Your task to perform on an android device: open sync settings in chrome Image 0: 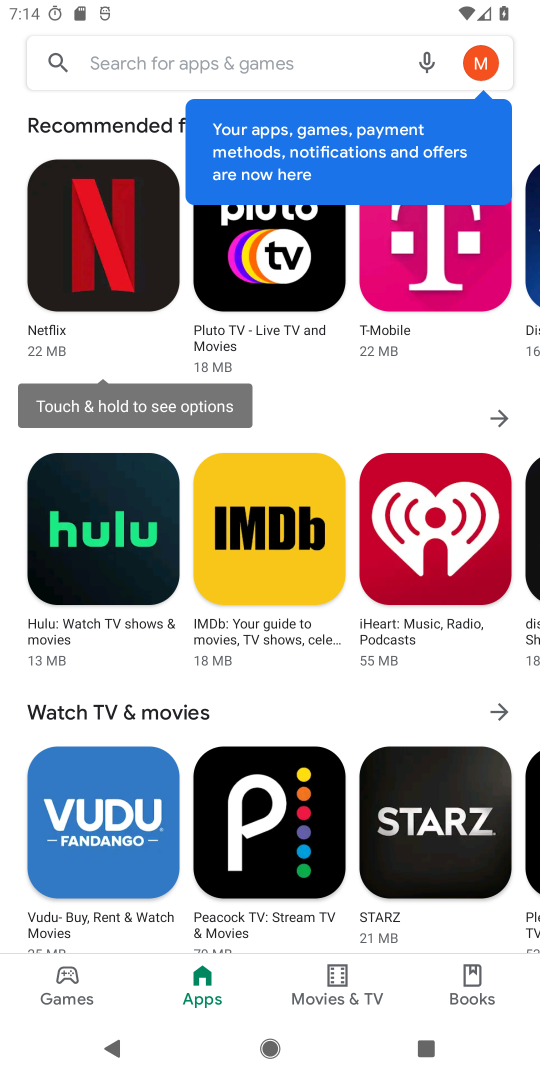
Step 0: click (245, 57)
Your task to perform on an android device: open sync settings in chrome Image 1: 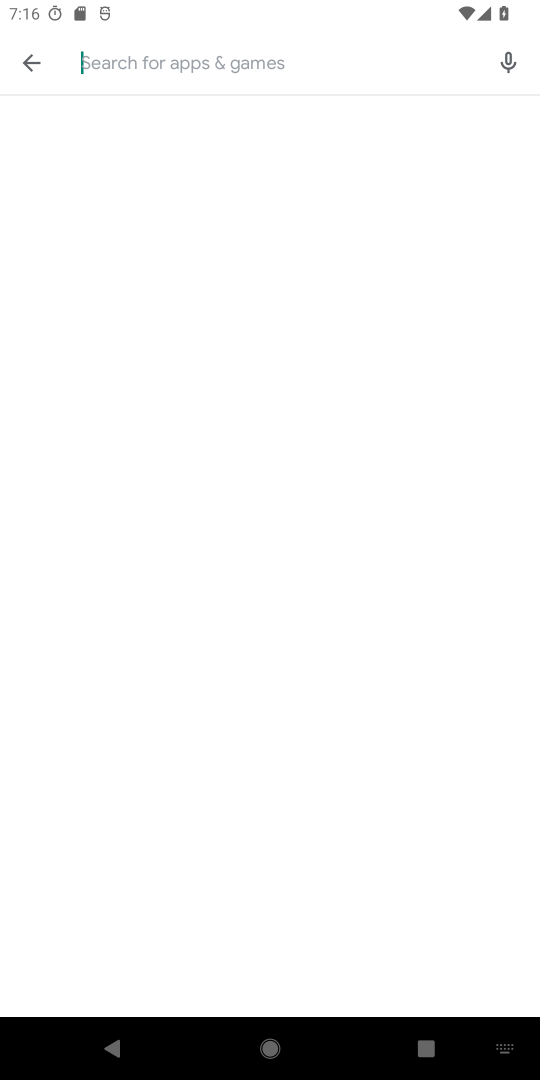
Step 1: click (40, 55)
Your task to perform on an android device: open sync settings in chrome Image 2: 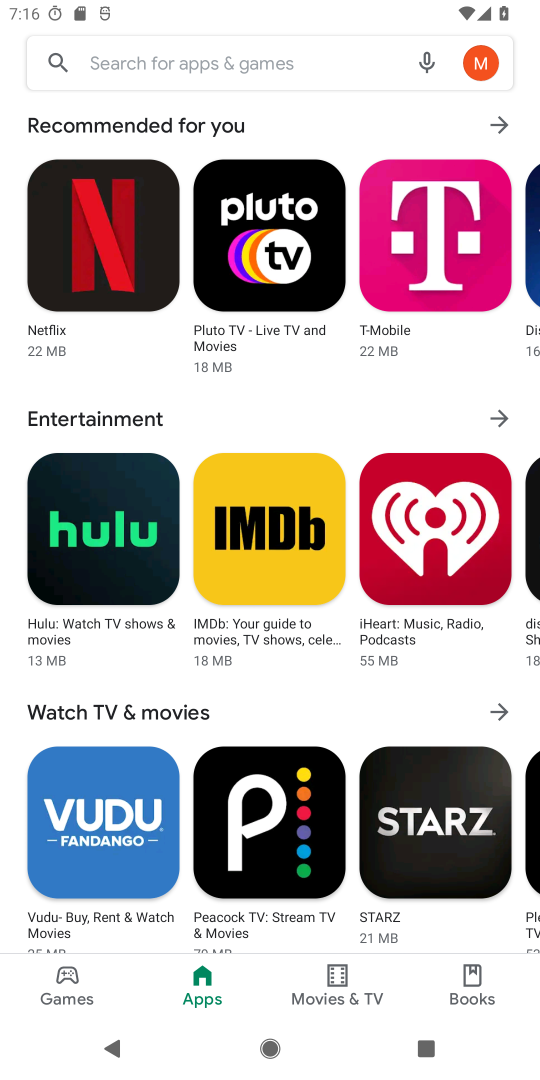
Step 2: press back button
Your task to perform on an android device: open sync settings in chrome Image 3: 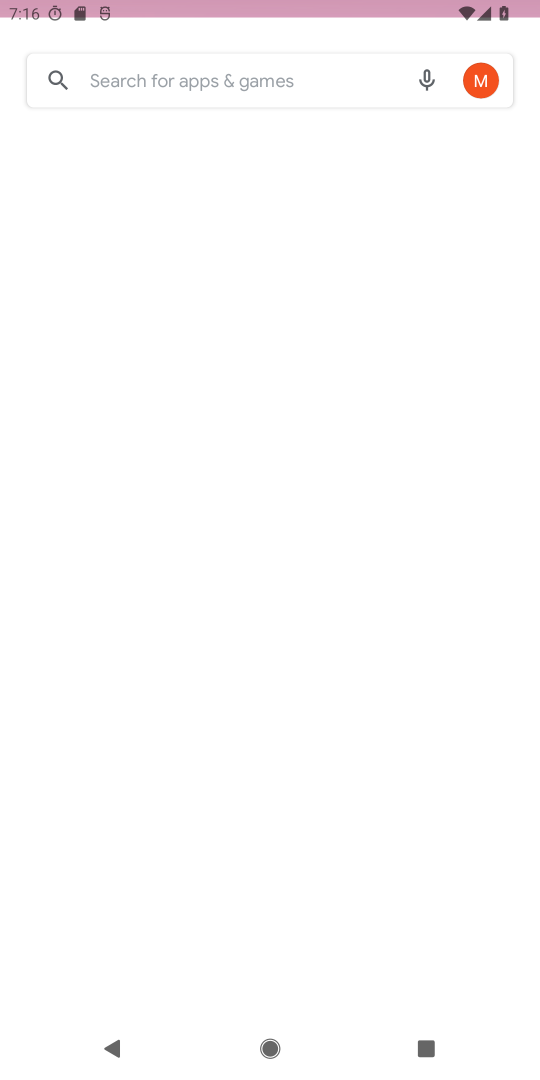
Step 3: press back button
Your task to perform on an android device: open sync settings in chrome Image 4: 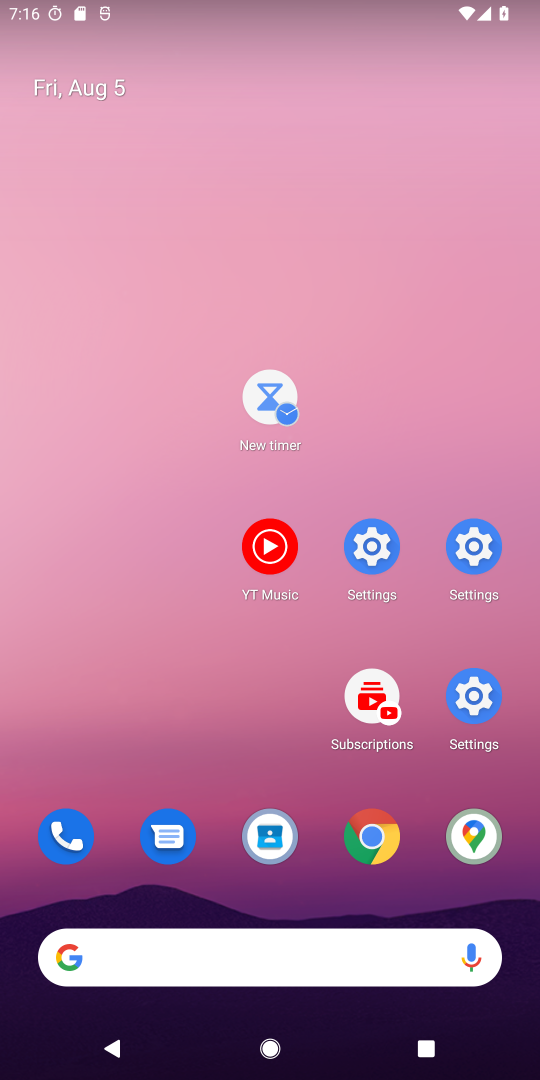
Step 4: drag from (200, 229) to (301, 278)
Your task to perform on an android device: open sync settings in chrome Image 5: 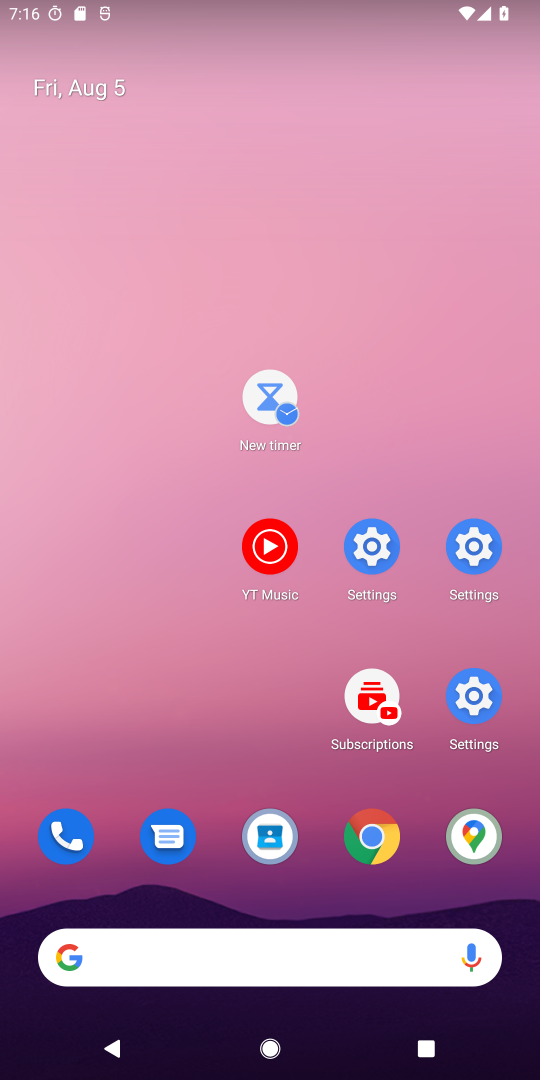
Step 5: drag from (260, 374) to (237, 195)
Your task to perform on an android device: open sync settings in chrome Image 6: 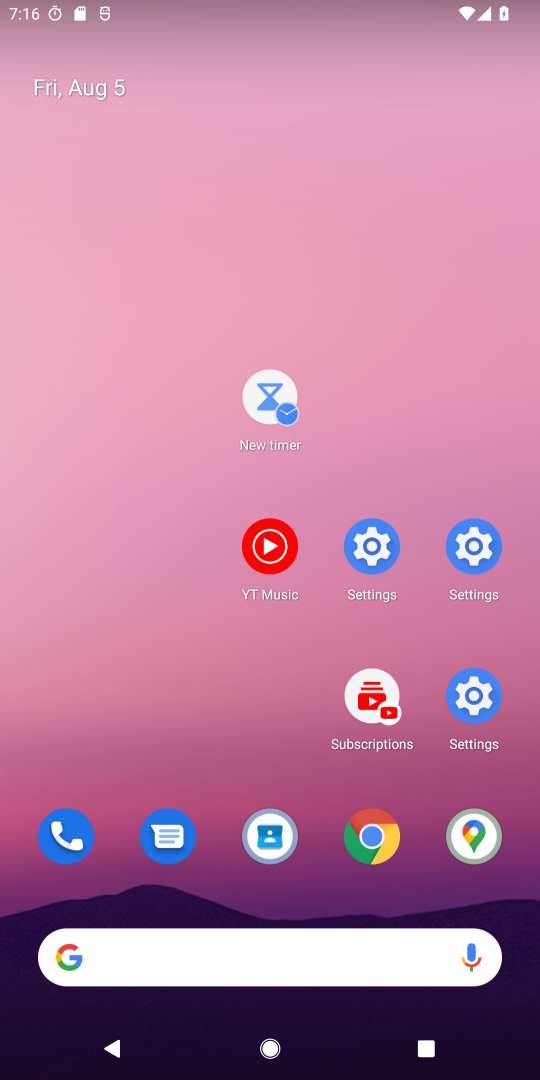
Step 6: drag from (240, 371) to (239, 478)
Your task to perform on an android device: open sync settings in chrome Image 7: 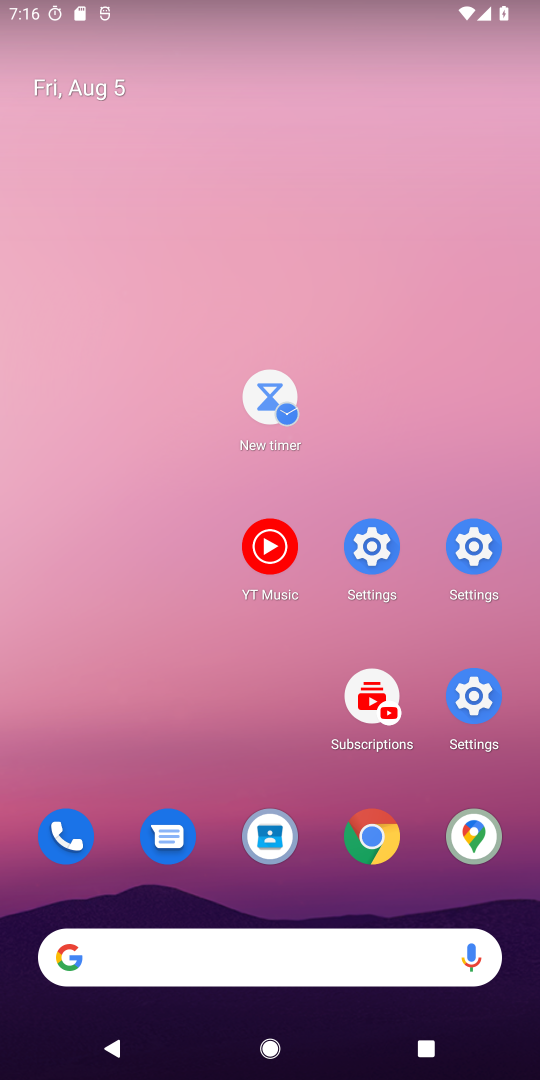
Step 7: drag from (248, 379) to (244, 241)
Your task to perform on an android device: open sync settings in chrome Image 8: 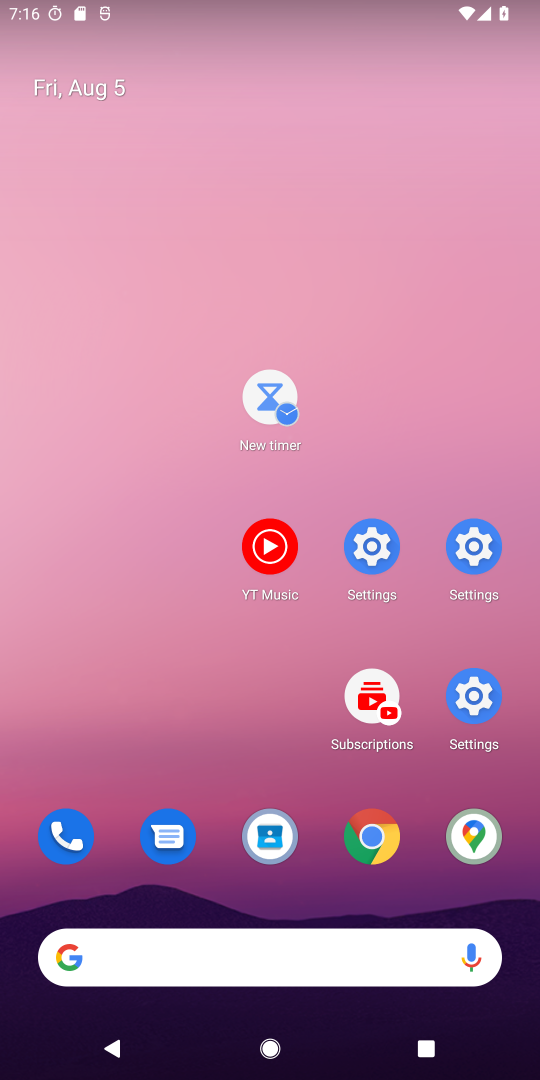
Step 8: drag from (219, 637) to (179, 287)
Your task to perform on an android device: open sync settings in chrome Image 9: 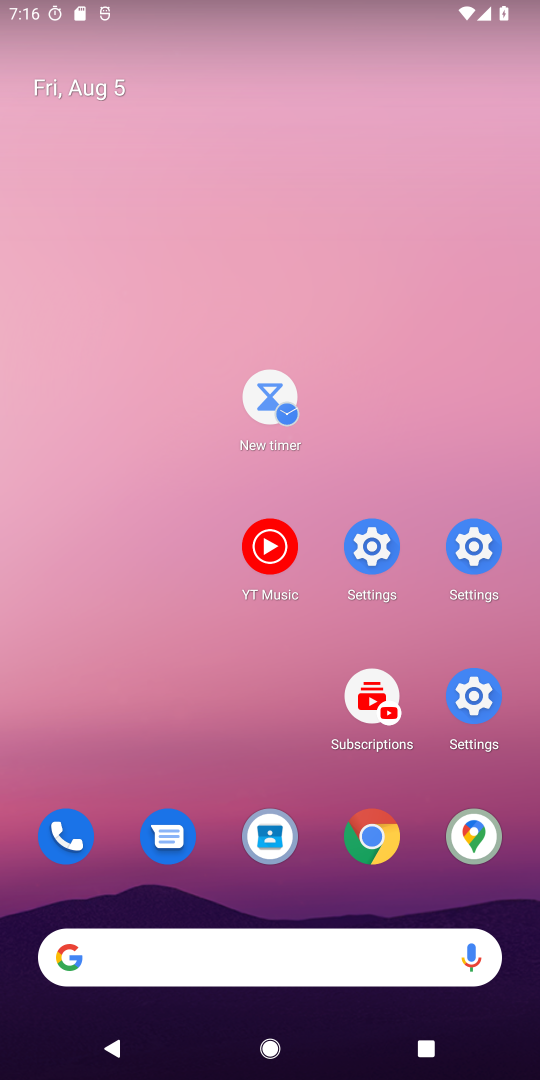
Step 9: drag from (248, 912) to (170, 230)
Your task to perform on an android device: open sync settings in chrome Image 10: 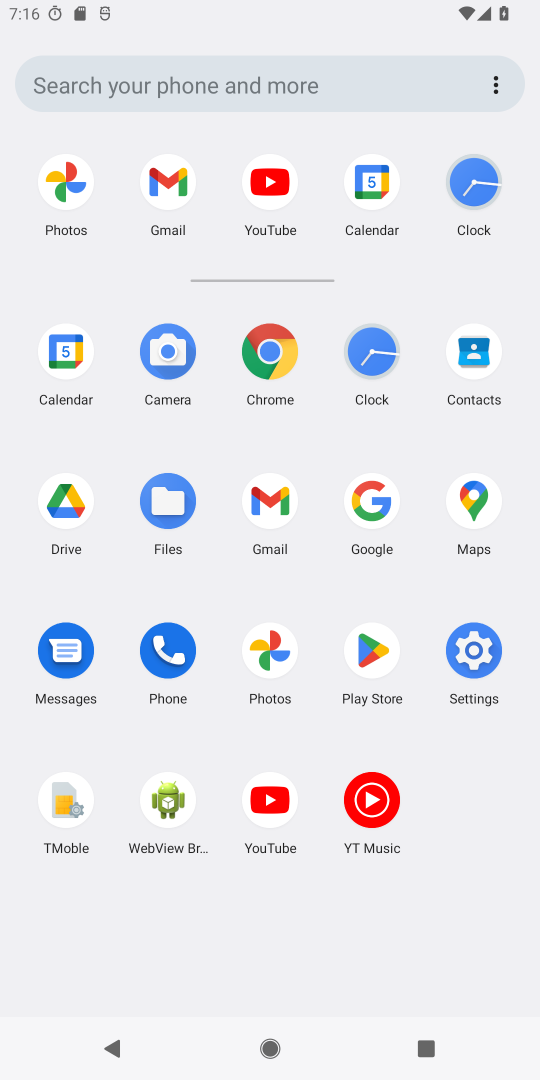
Step 10: click (277, 346)
Your task to perform on an android device: open sync settings in chrome Image 11: 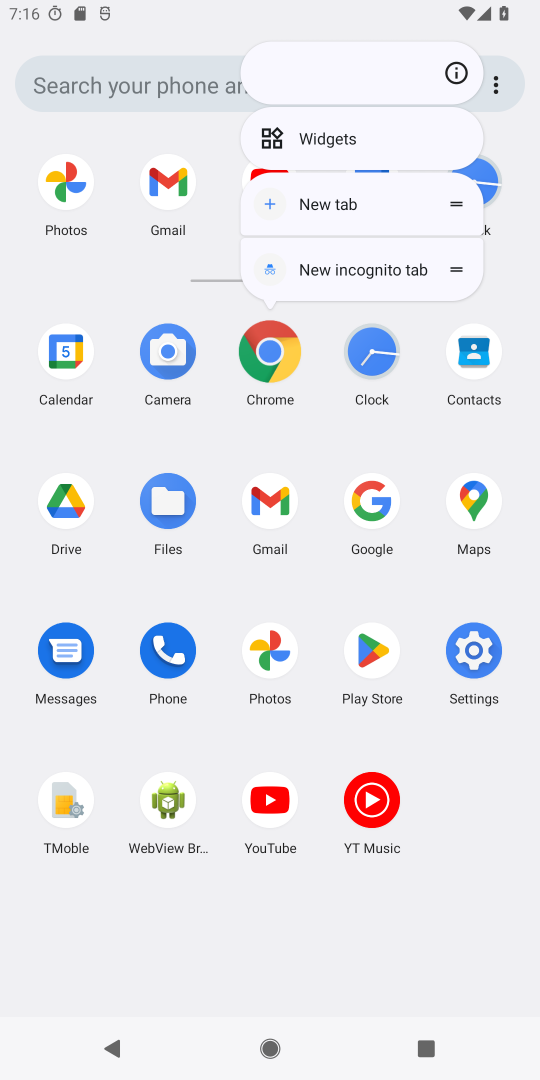
Step 11: click (277, 346)
Your task to perform on an android device: open sync settings in chrome Image 12: 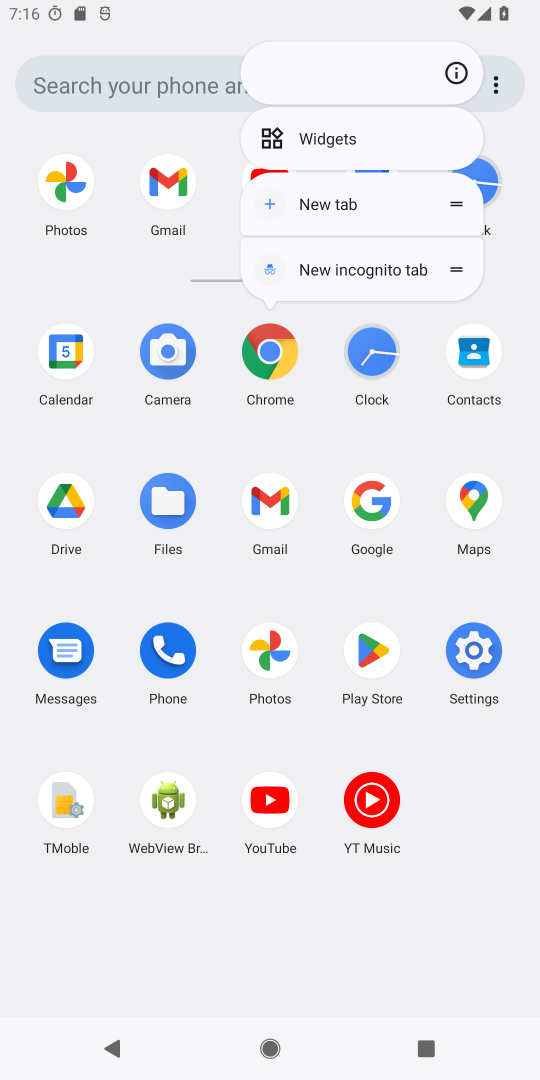
Step 12: click (254, 339)
Your task to perform on an android device: open sync settings in chrome Image 13: 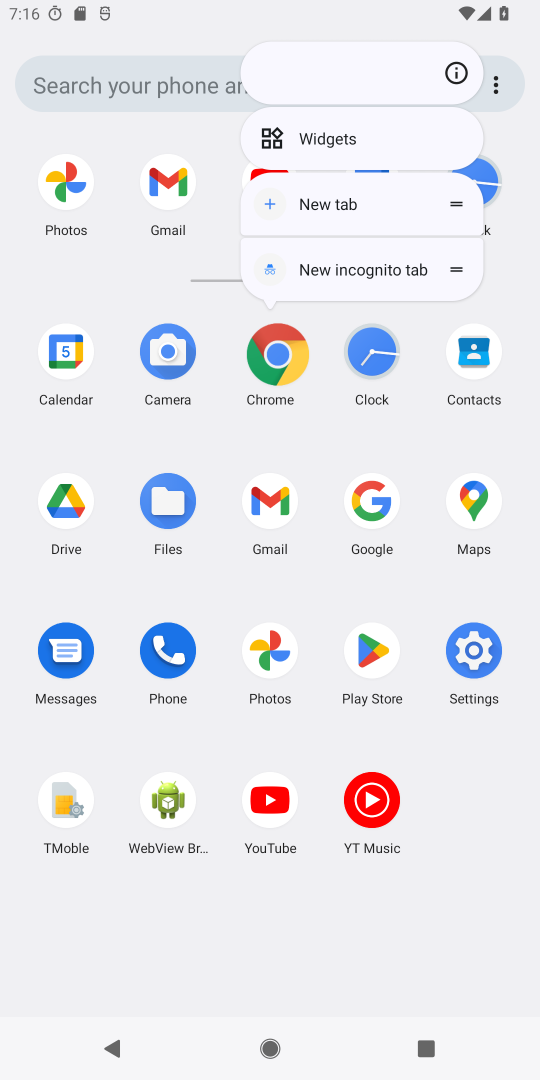
Step 13: click (261, 352)
Your task to perform on an android device: open sync settings in chrome Image 14: 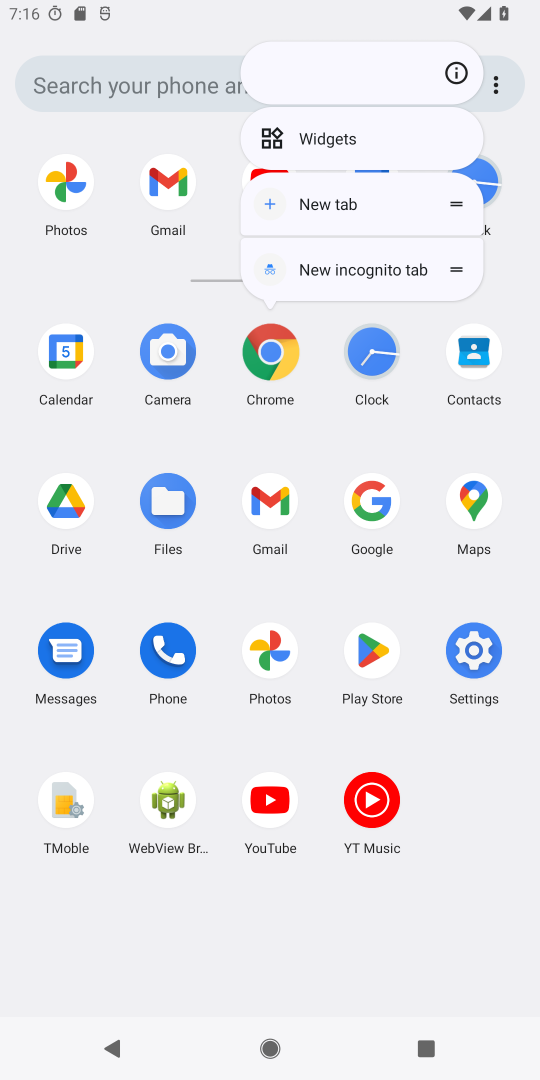
Step 14: click (261, 353)
Your task to perform on an android device: open sync settings in chrome Image 15: 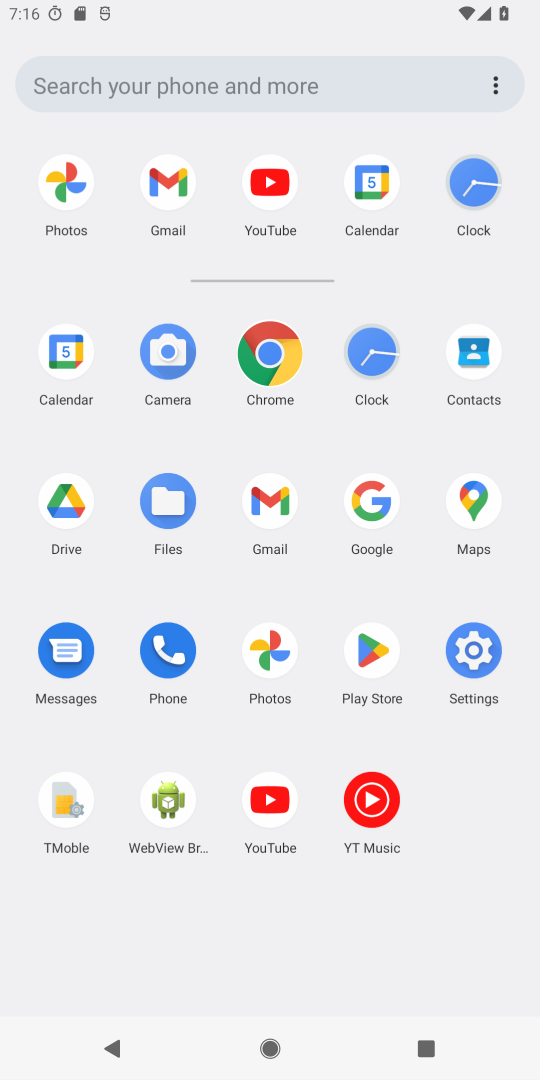
Step 15: click (263, 354)
Your task to perform on an android device: open sync settings in chrome Image 16: 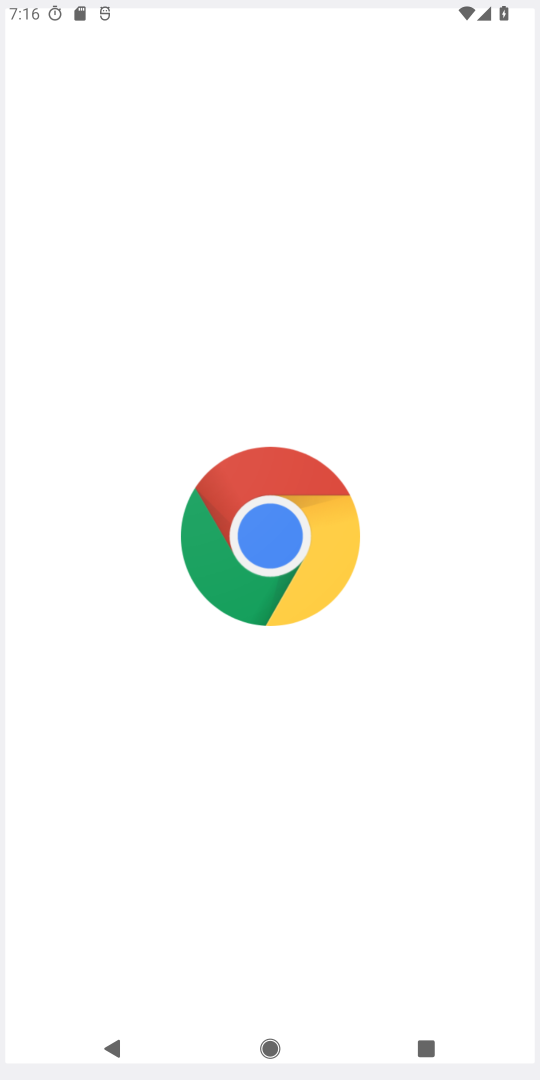
Step 16: click (263, 354)
Your task to perform on an android device: open sync settings in chrome Image 17: 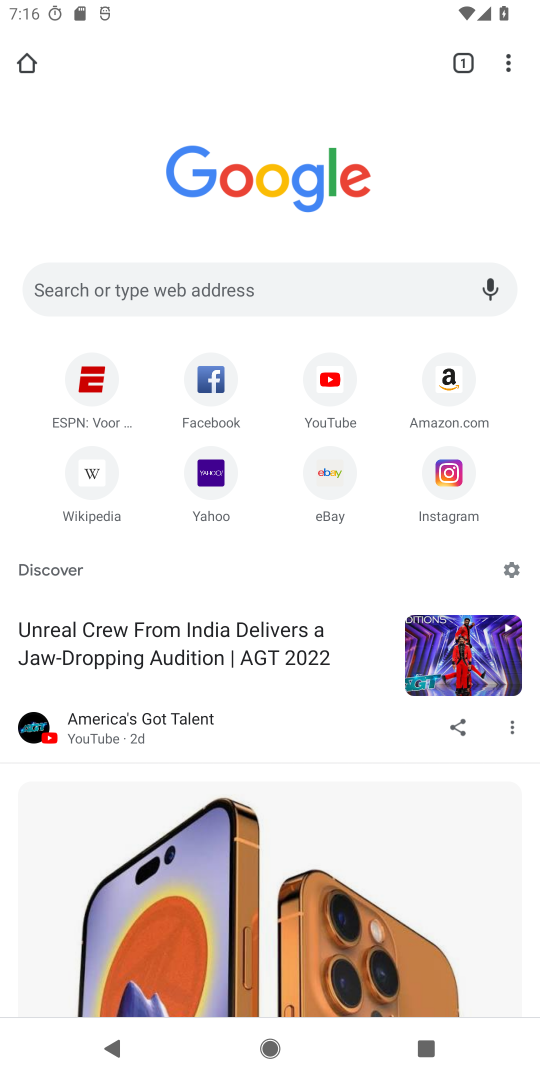
Step 17: drag from (254, 712) to (248, 555)
Your task to perform on an android device: open sync settings in chrome Image 18: 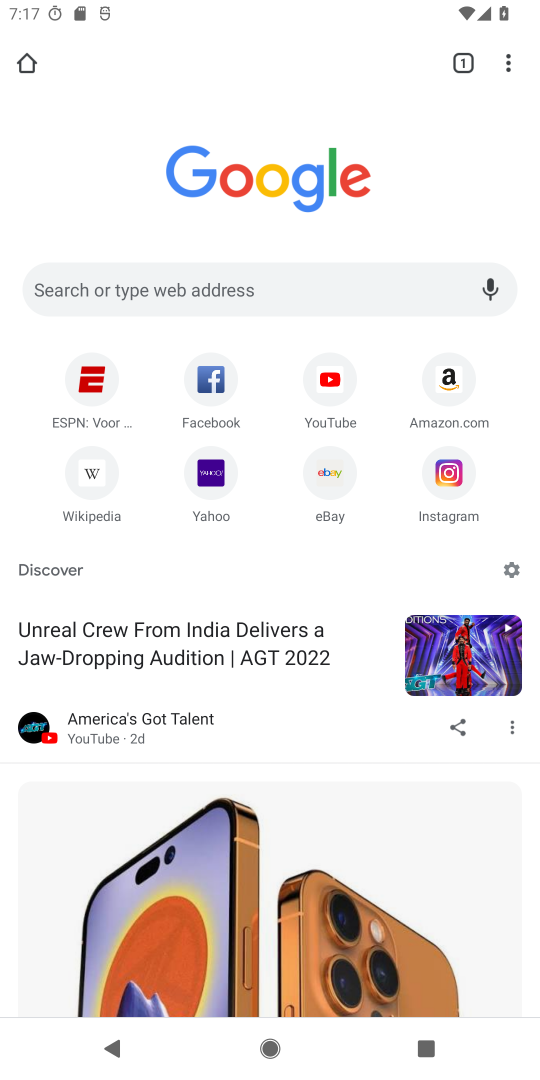
Step 18: click (510, 57)
Your task to perform on an android device: open sync settings in chrome Image 19: 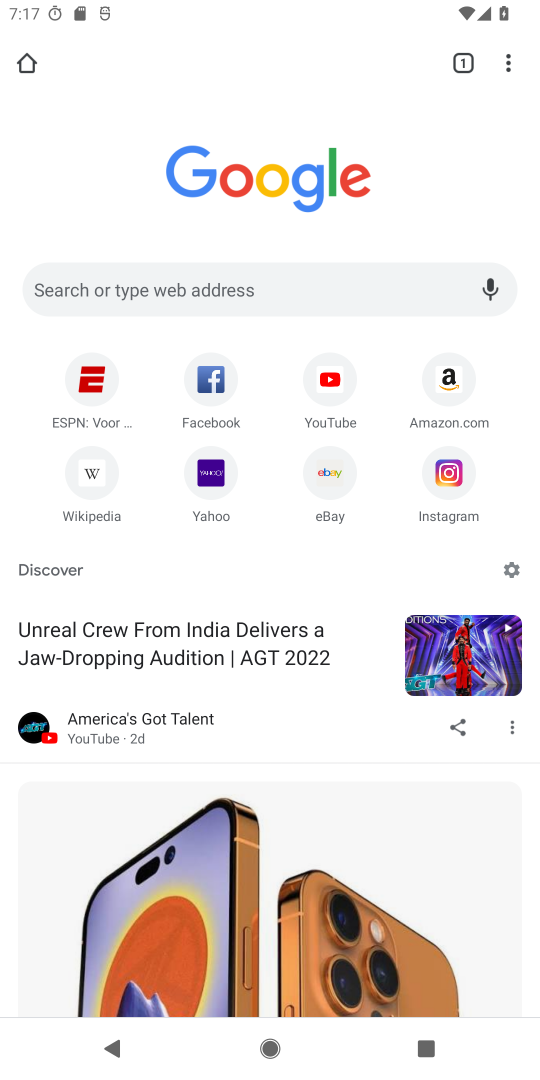
Step 19: drag from (509, 65) to (313, 528)
Your task to perform on an android device: open sync settings in chrome Image 20: 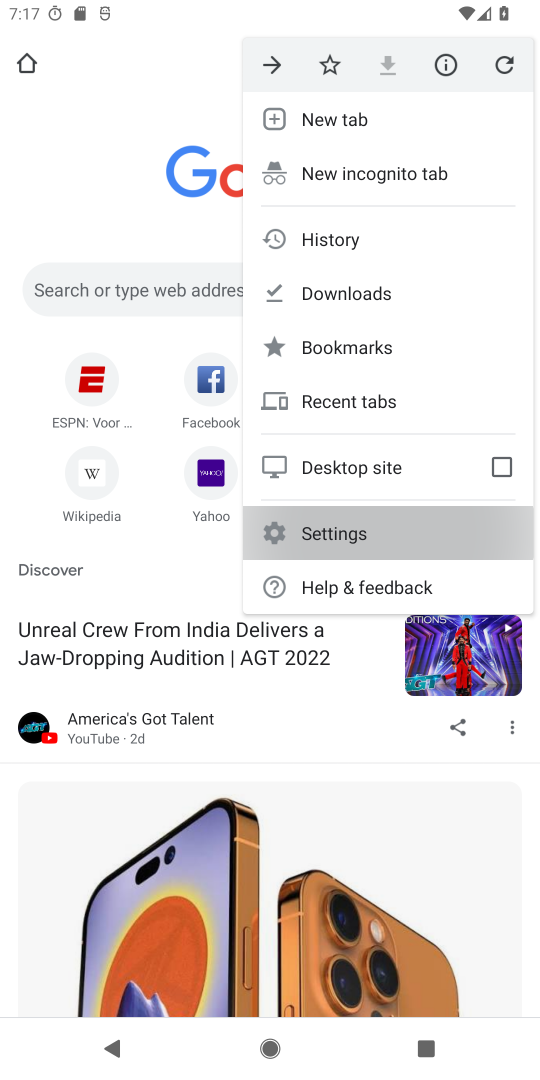
Step 20: click (313, 528)
Your task to perform on an android device: open sync settings in chrome Image 21: 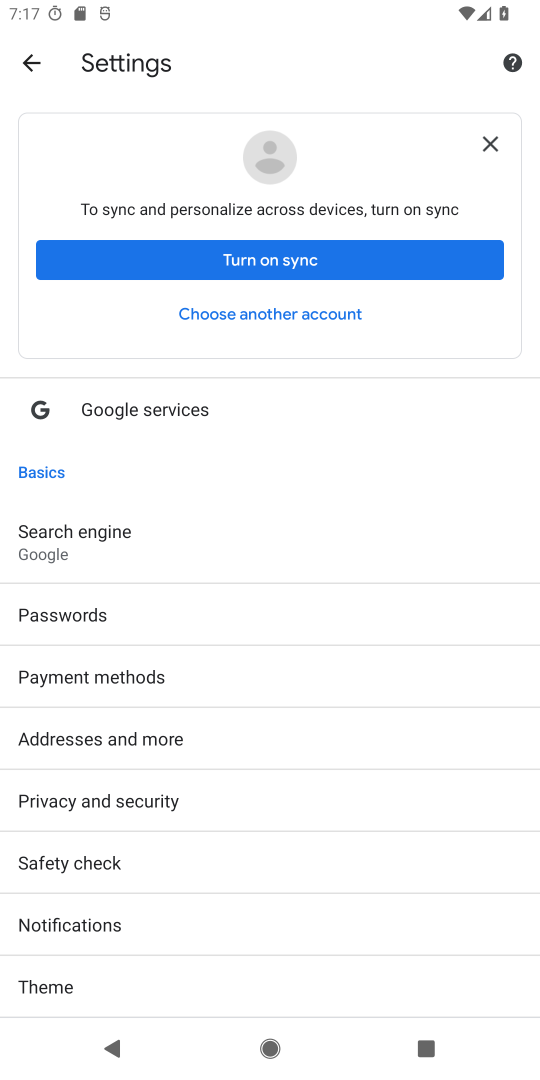
Step 21: drag from (137, 805) to (153, 582)
Your task to perform on an android device: open sync settings in chrome Image 22: 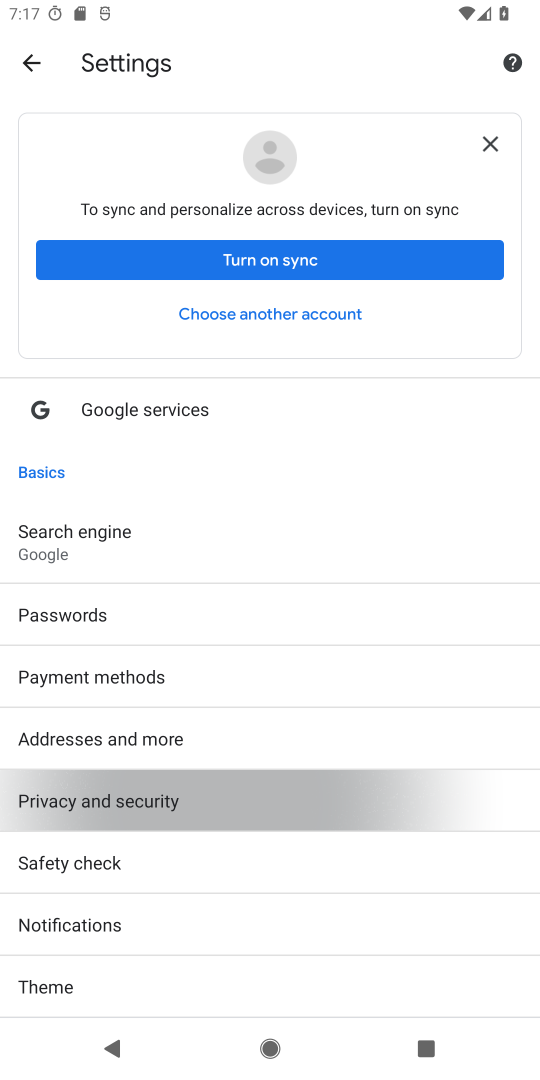
Step 22: drag from (117, 790) to (162, 513)
Your task to perform on an android device: open sync settings in chrome Image 23: 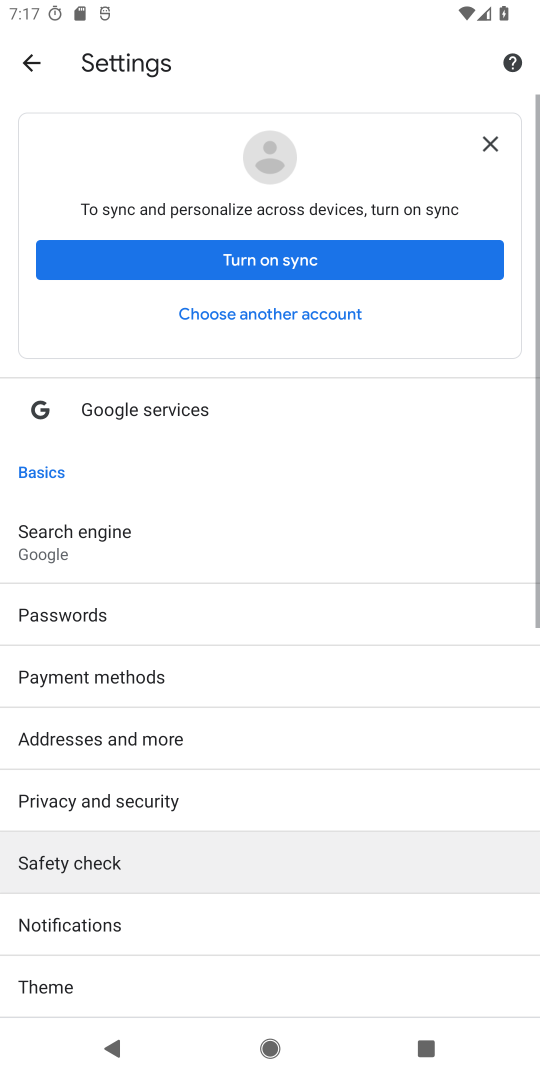
Step 23: drag from (154, 659) to (144, 432)
Your task to perform on an android device: open sync settings in chrome Image 24: 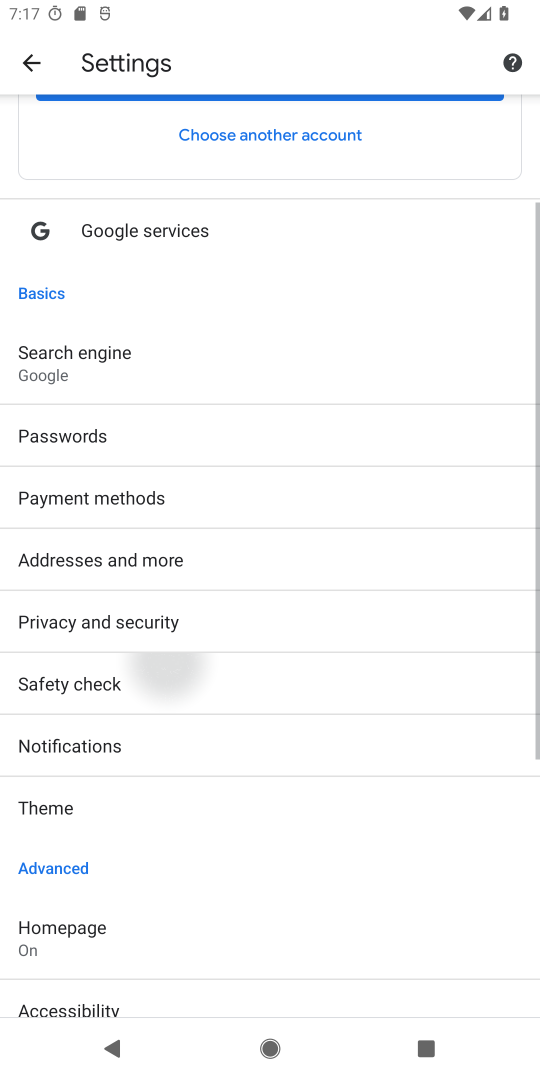
Step 24: drag from (92, 789) to (156, 524)
Your task to perform on an android device: open sync settings in chrome Image 25: 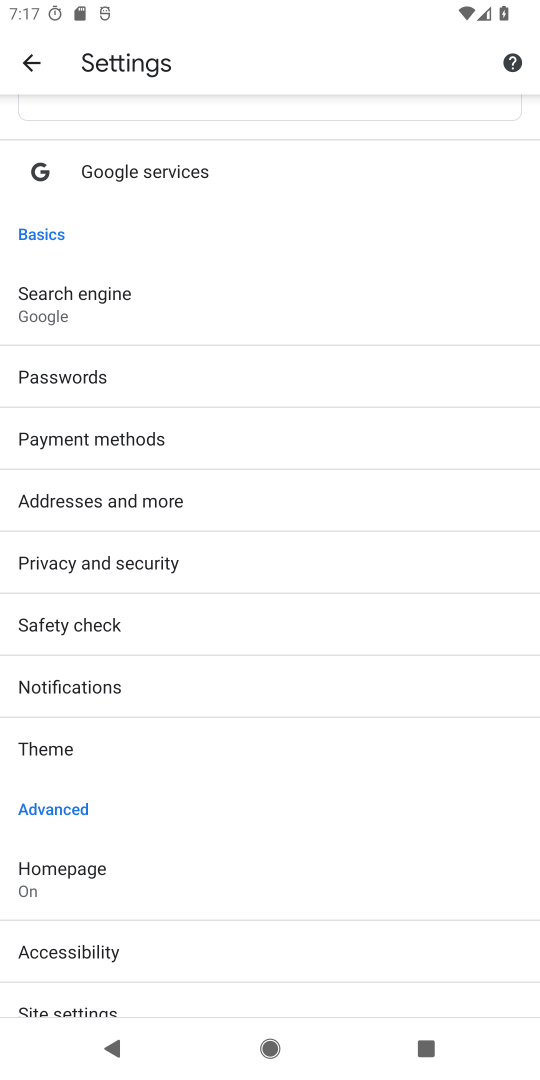
Step 25: drag from (142, 795) to (161, 470)
Your task to perform on an android device: open sync settings in chrome Image 26: 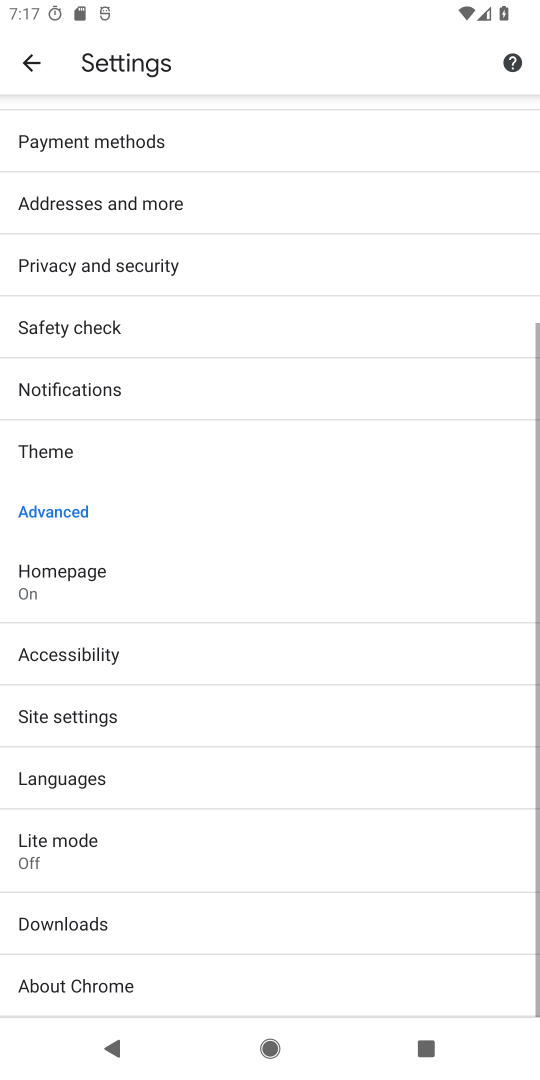
Step 26: drag from (232, 708) to (231, 479)
Your task to perform on an android device: open sync settings in chrome Image 27: 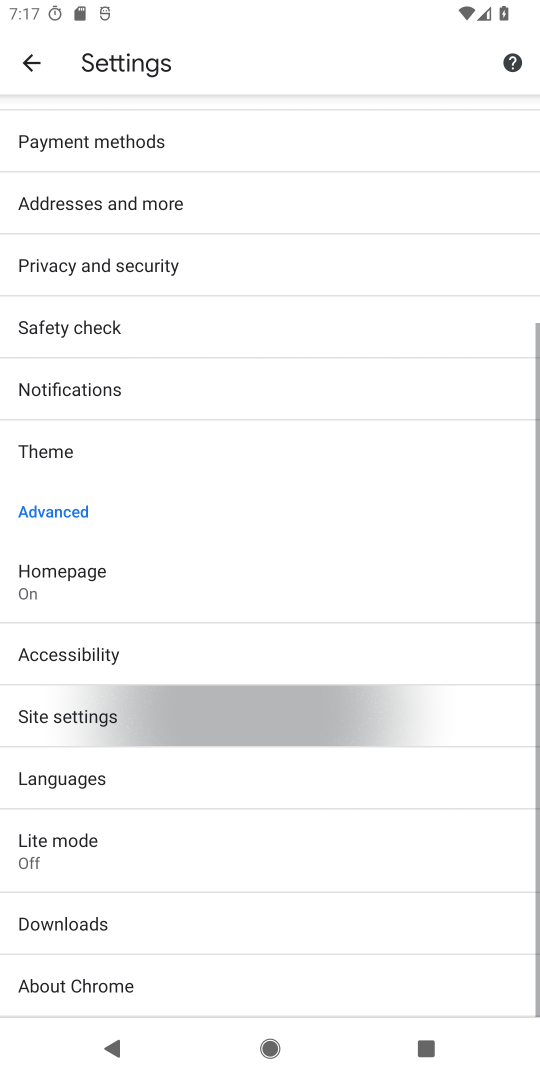
Step 27: drag from (254, 626) to (254, 382)
Your task to perform on an android device: open sync settings in chrome Image 28: 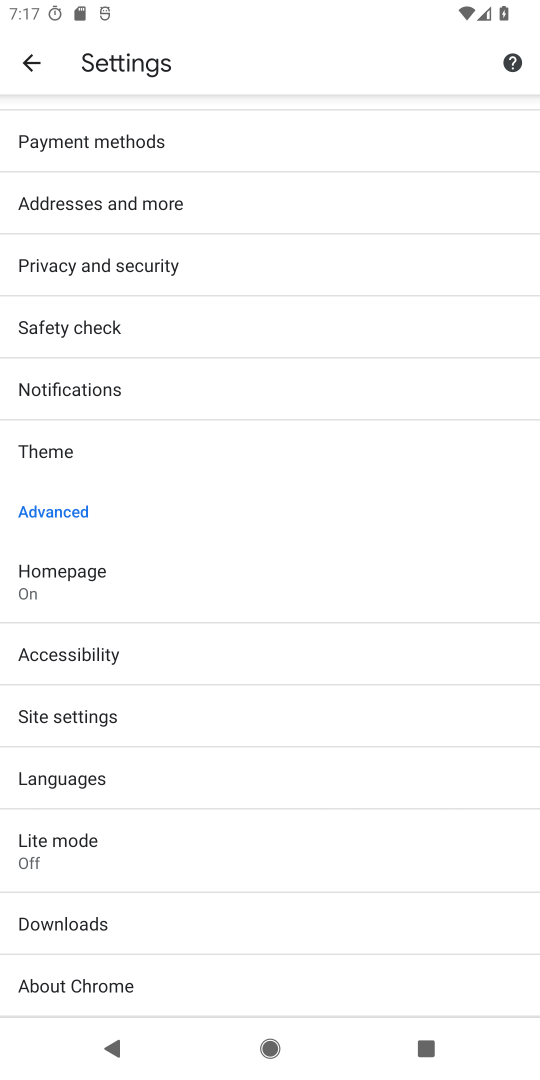
Step 28: click (53, 705)
Your task to perform on an android device: open sync settings in chrome Image 29: 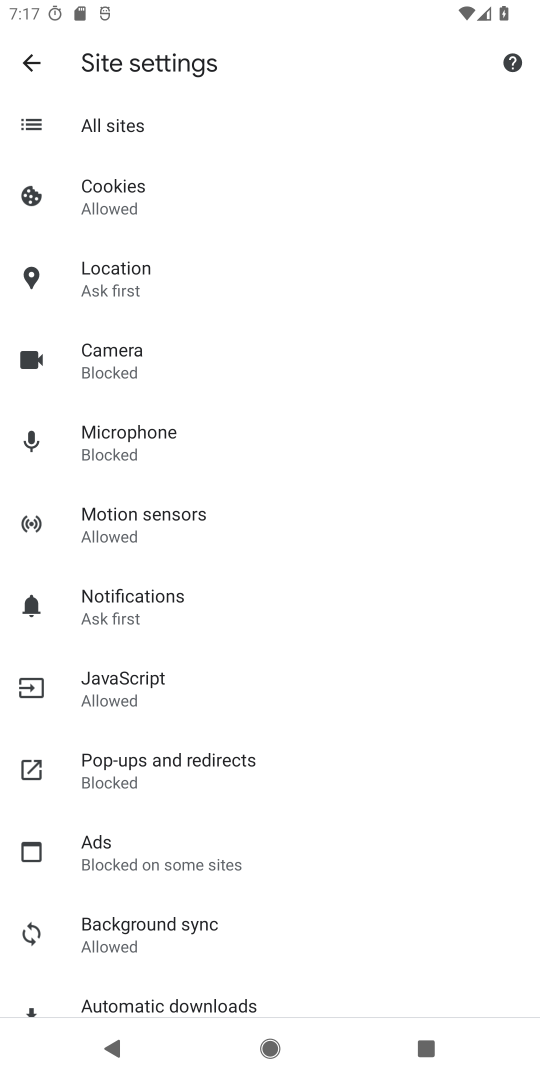
Step 29: click (121, 933)
Your task to perform on an android device: open sync settings in chrome Image 30: 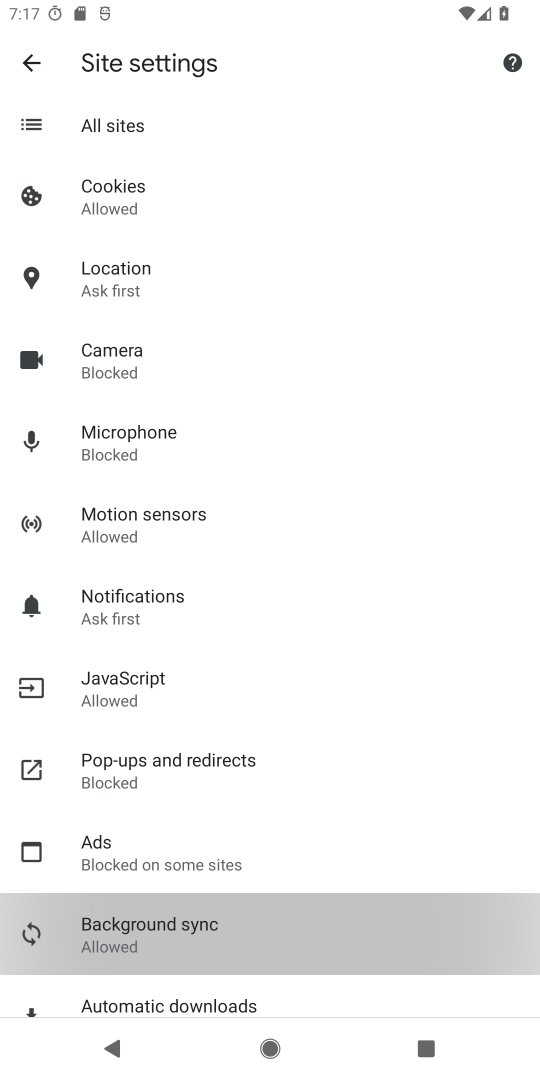
Step 30: click (117, 935)
Your task to perform on an android device: open sync settings in chrome Image 31: 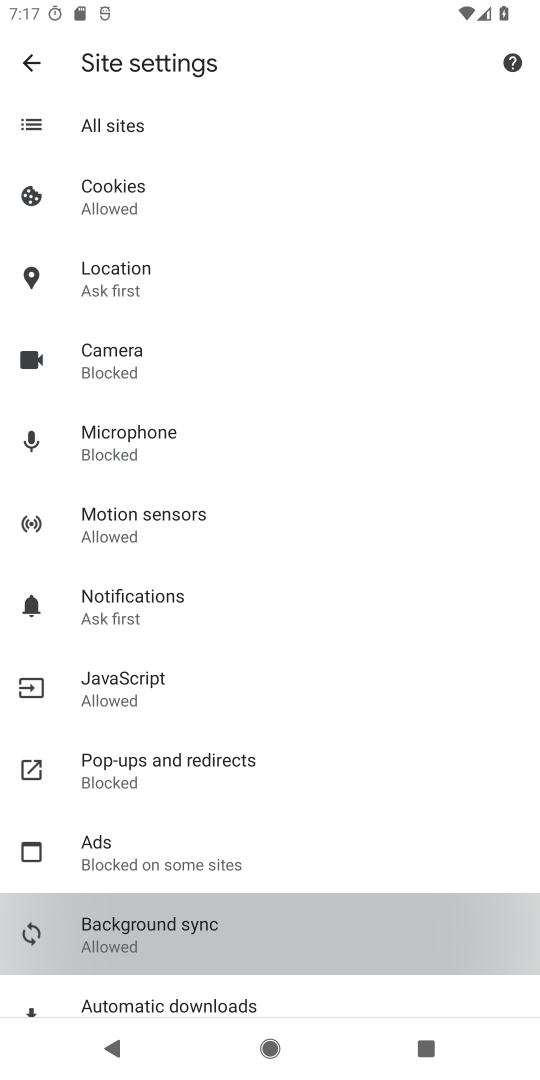
Step 31: click (134, 953)
Your task to perform on an android device: open sync settings in chrome Image 32: 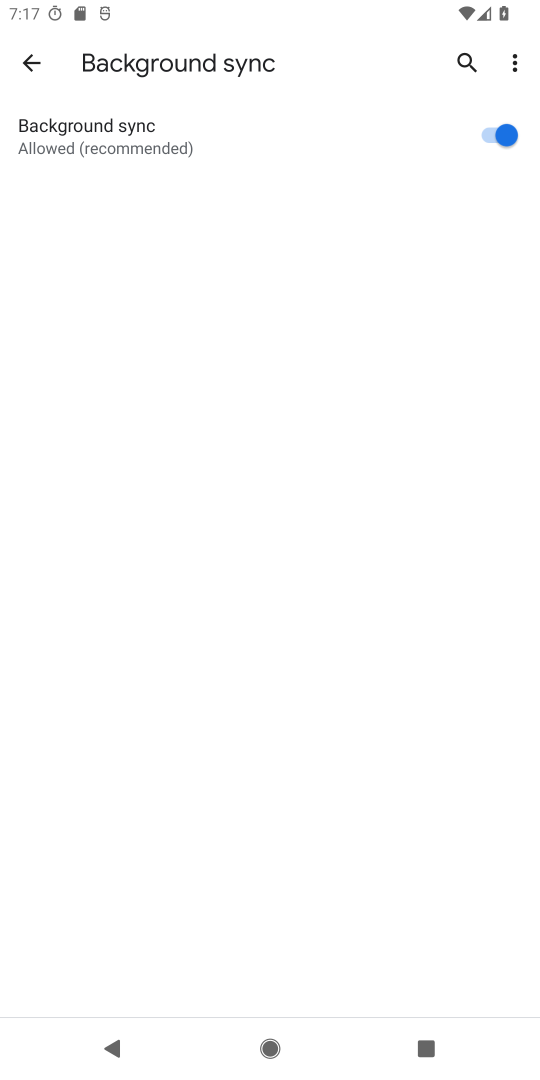
Step 32: task complete